Your task to perform on an android device: Open wifi settings Image 0: 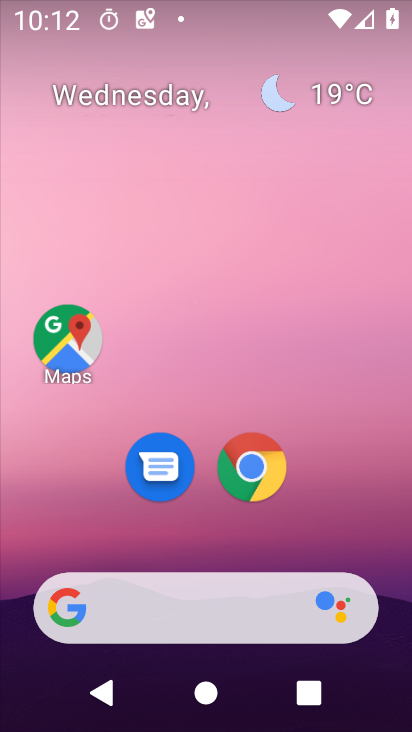
Step 0: drag from (241, 535) to (152, 66)
Your task to perform on an android device: Open wifi settings Image 1: 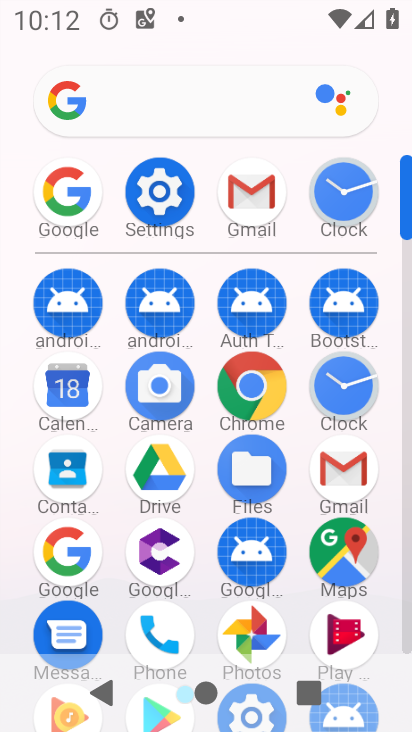
Step 1: click (171, 195)
Your task to perform on an android device: Open wifi settings Image 2: 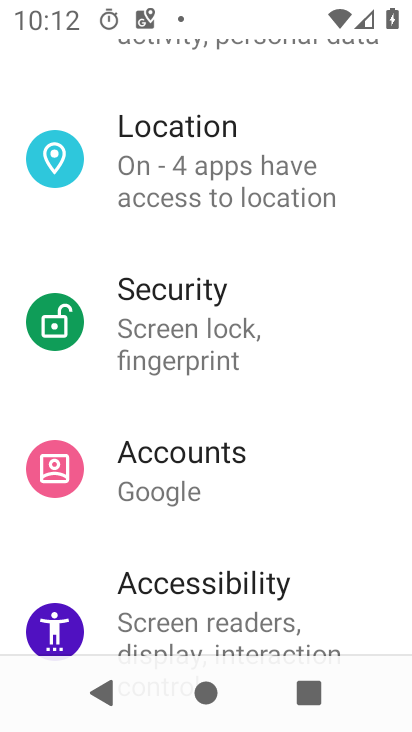
Step 2: drag from (269, 168) to (231, 584)
Your task to perform on an android device: Open wifi settings Image 3: 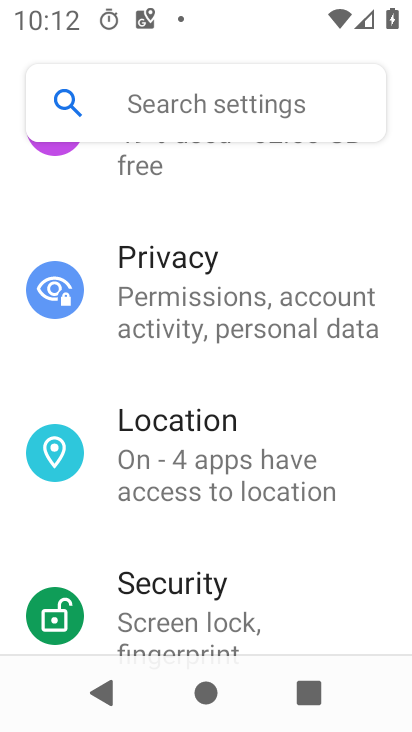
Step 3: drag from (272, 216) to (242, 627)
Your task to perform on an android device: Open wifi settings Image 4: 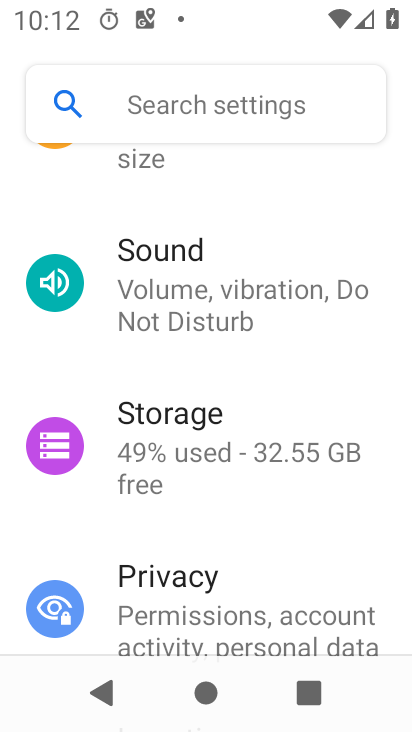
Step 4: drag from (257, 268) to (236, 655)
Your task to perform on an android device: Open wifi settings Image 5: 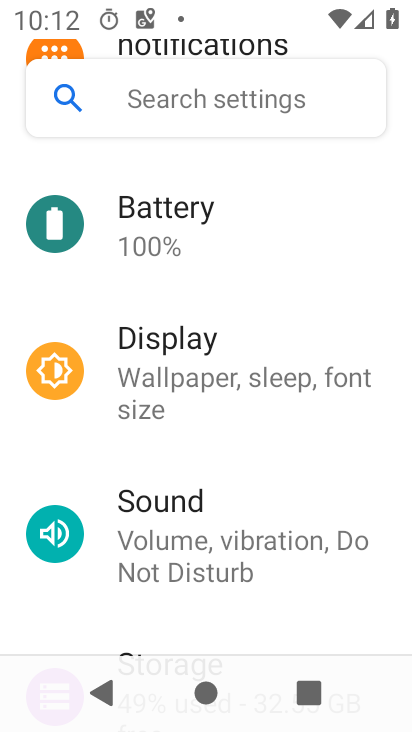
Step 5: drag from (257, 237) to (188, 707)
Your task to perform on an android device: Open wifi settings Image 6: 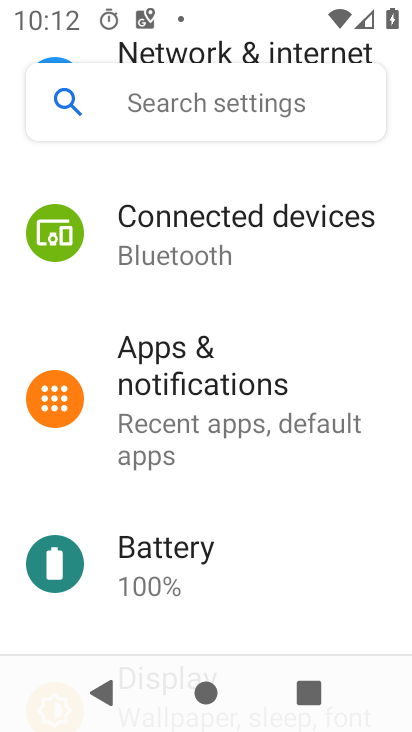
Step 6: drag from (242, 289) to (193, 723)
Your task to perform on an android device: Open wifi settings Image 7: 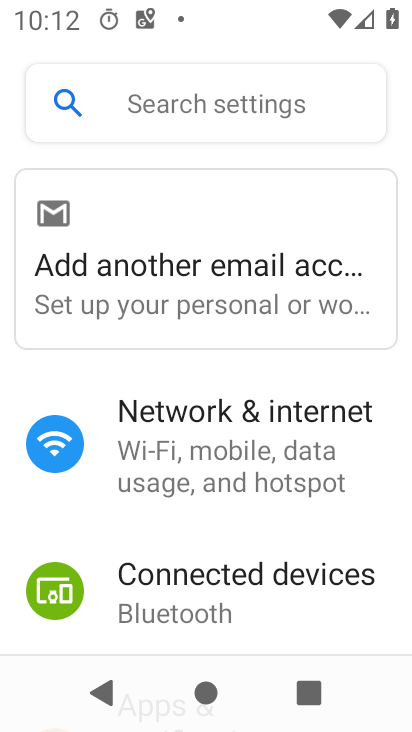
Step 7: click (211, 431)
Your task to perform on an android device: Open wifi settings Image 8: 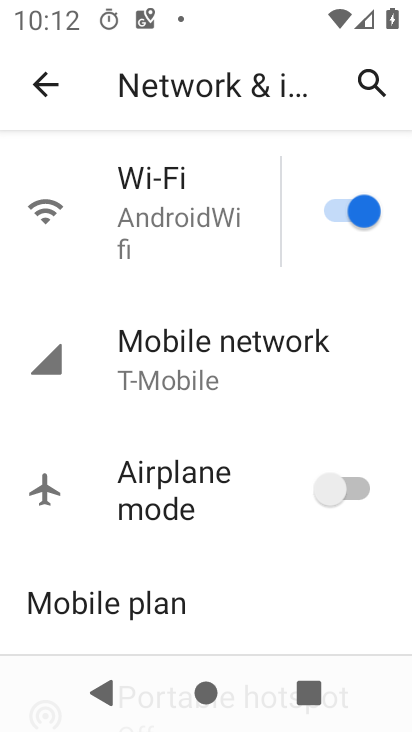
Step 8: click (196, 201)
Your task to perform on an android device: Open wifi settings Image 9: 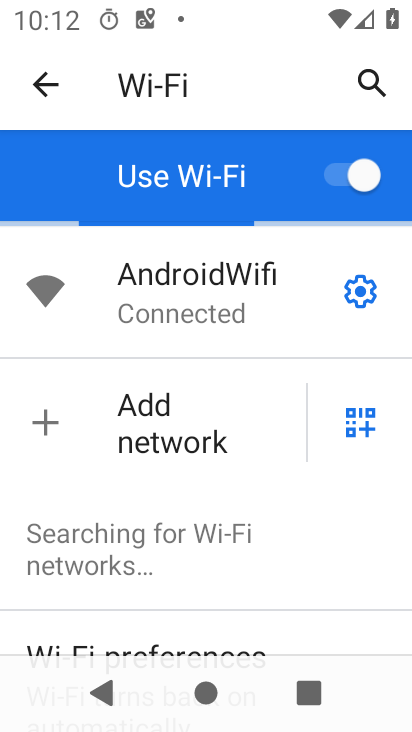
Step 9: task complete